Your task to perform on an android device: check data usage Image 0: 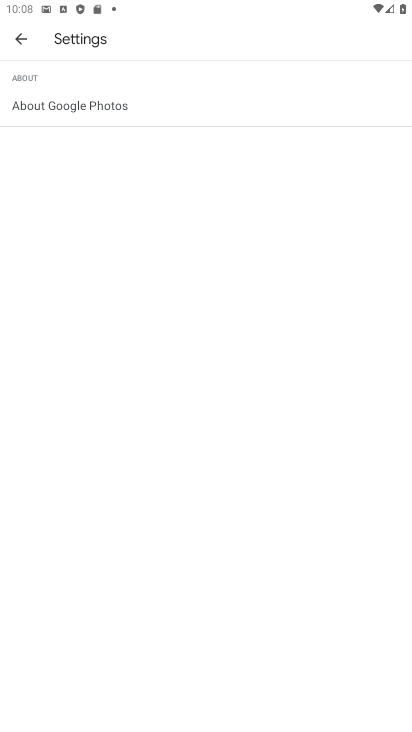
Step 0: press home button
Your task to perform on an android device: check data usage Image 1: 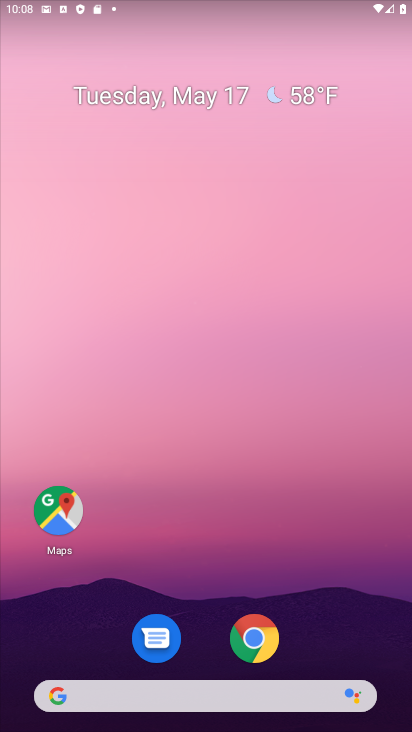
Step 1: drag from (203, 610) to (230, 1)
Your task to perform on an android device: check data usage Image 2: 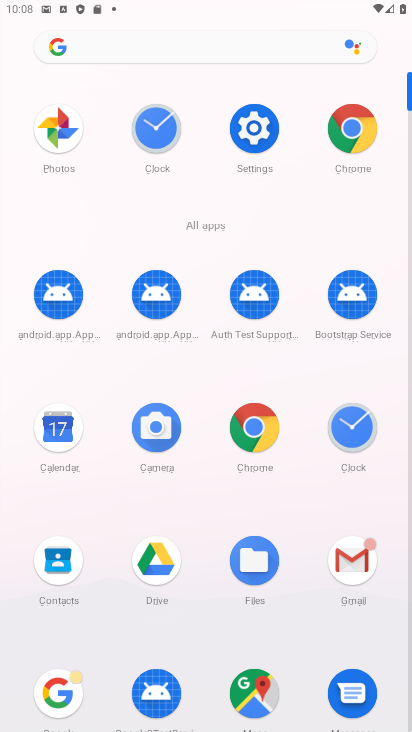
Step 2: click (266, 173)
Your task to perform on an android device: check data usage Image 3: 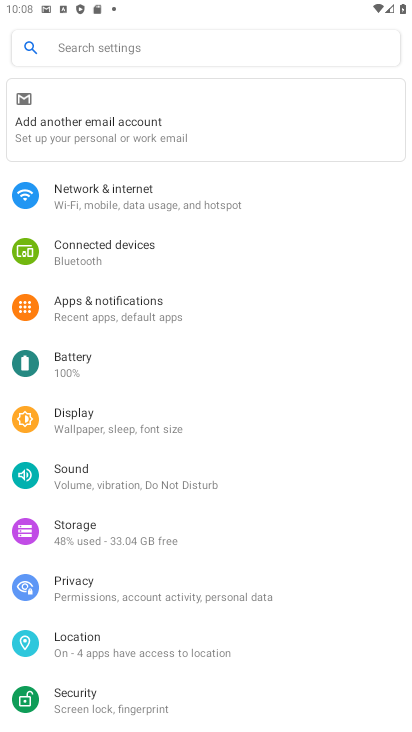
Step 3: click (117, 213)
Your task to perform on an android device: check data usage Image 4: 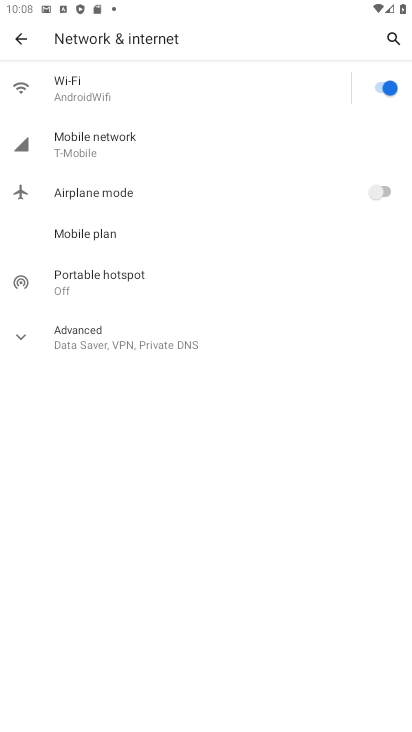
Step 4: task complete